Your task to perform on an android device: turn on bluetooth scan Image 0: 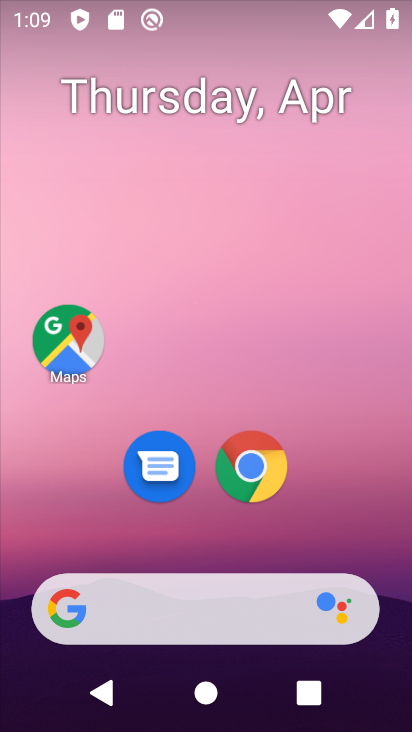
Step 0: drag from (358, 413) to (275, 2)
Your task to perform on an android device: turn on bluetooth scan Image 1: 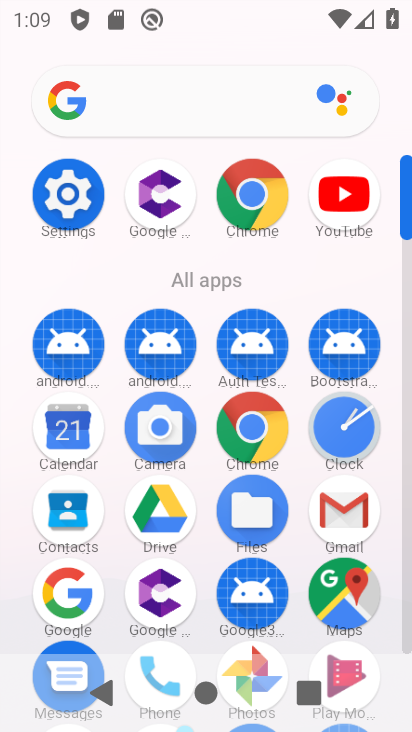
Step 1: drag from (11, 527) to (40, 238)
Your task to perform on an android device: turn on bluetooth scan Image 2: 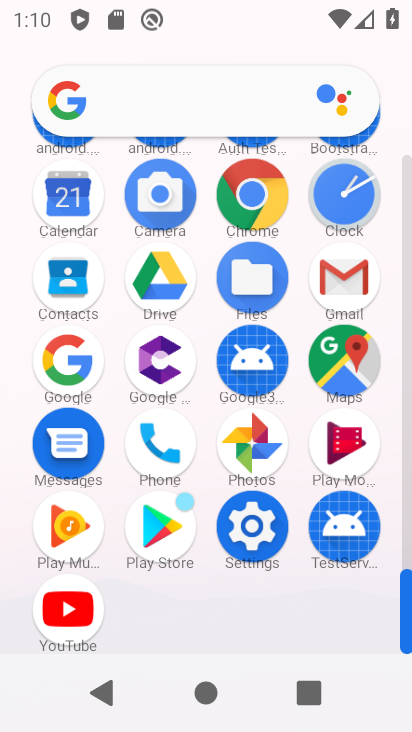
Step 2: click (251, 513)
Your task to perform on an android device: turn on bluetooth scan Image 3: 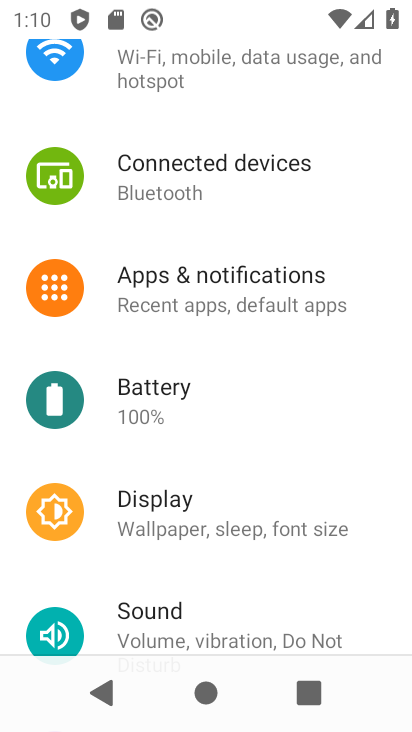
Step 3: drag from (346, 429) to (335, 121)
Your task to perform on an android device: turn on bluetooth scan Image 4: 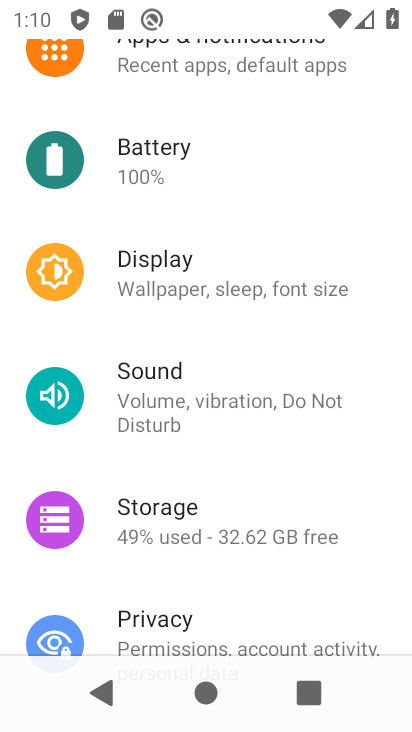
Step 4: drag from (256, 592) to (301, 156)
Your task to perform on an android device: turn on bluetooth scan Image 5: 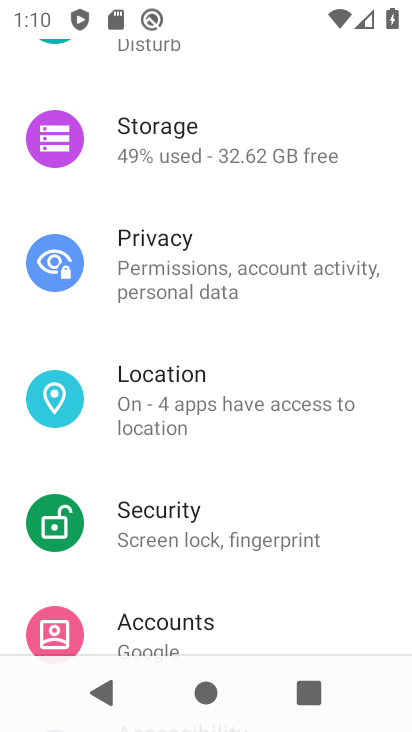
Step 5: drag from (266, 552) to (289, 162)
Your task to perform on an android device: turn on bluetooth scan Image 6: 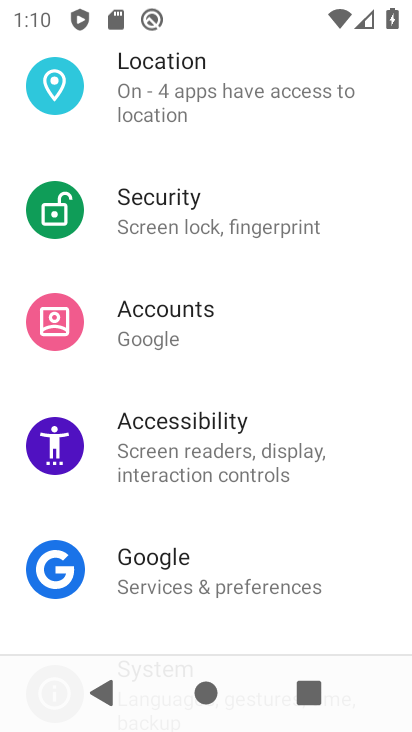
Step 6: drag from (294, 516) to (295, 117)
Your task to perform on an android device: turn on bluetooth scan Image 7: 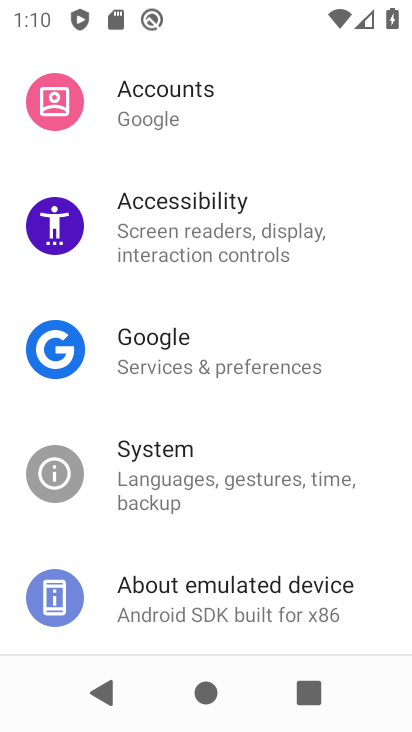
Step 7: drag from (244, 475) to (275, 136)
Your task to perform on an android device: turn on bluetooth scan Image 8: 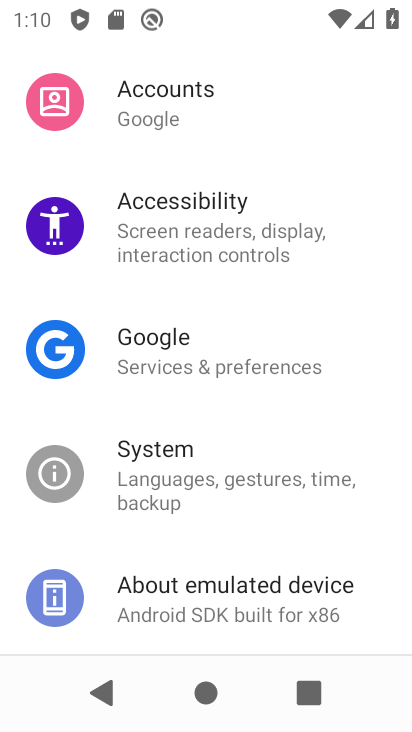
Step 8: drag from (268, 486) to (274, 148)
Your task to perform on an android device: turn on bluetooth scan Image 9: 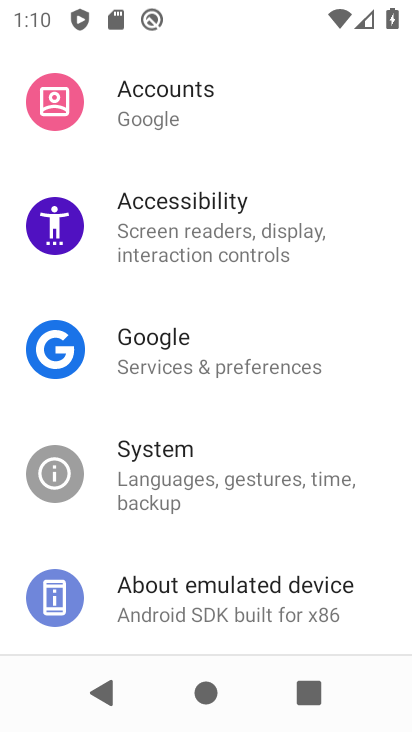
Step 9: drag from (237, 416) to (235, 545)
Your task to perform on an android device: turn on bluetooth scan Image 10: 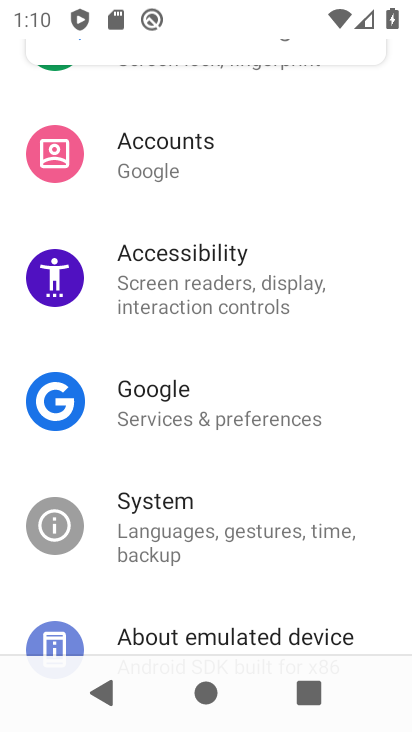
Step 10: drag from (269, 149) to (231, 392)
Your task to perform on an android device: turn on bluetooth scan Image 11: 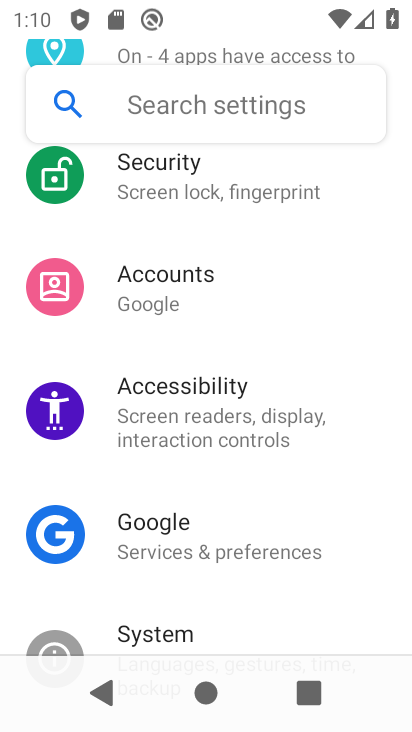
Step 11: drag from (258, 224) to (247, 508)
Your task to perform on an android device: turn on bluetooth scan Image 12: 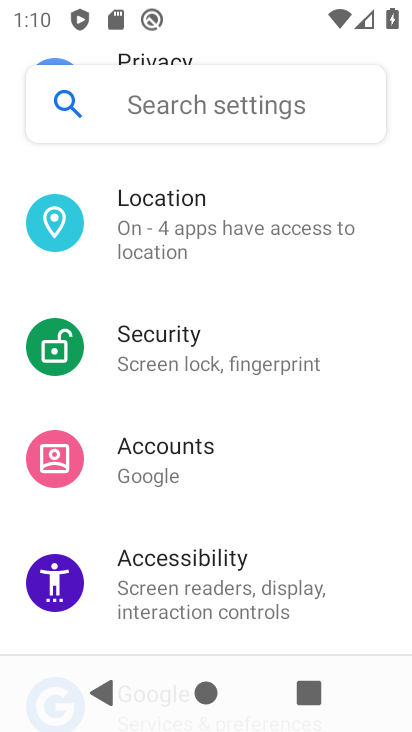
Step 12: click (251, 211)
Your task to perform on an android device: turn on bluetooth scan Image 13: 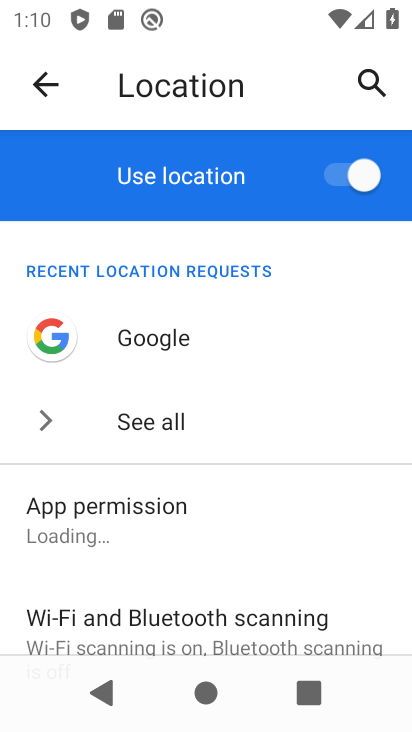
Step 13: drag from (234, 514) to (247, 160)
Your task to perform on an android device: turn on bluetooth scan Image 14: 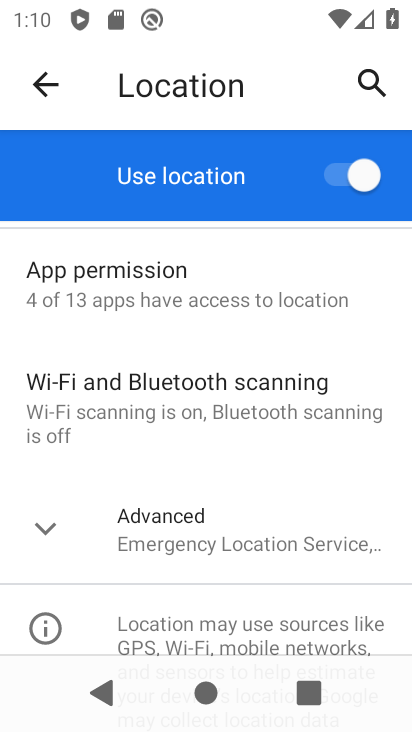
Step 14: click (100, 512)
Your task to perform on an android device: turn on bluetooth scan Image 15: 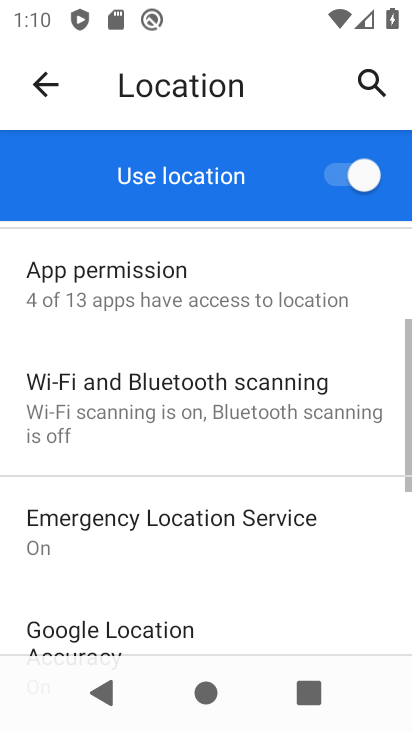
Step 15: drag from (254, 556) to (270, 187)
Your task to perform on an android device: turn on bluetooth scan Image 16: 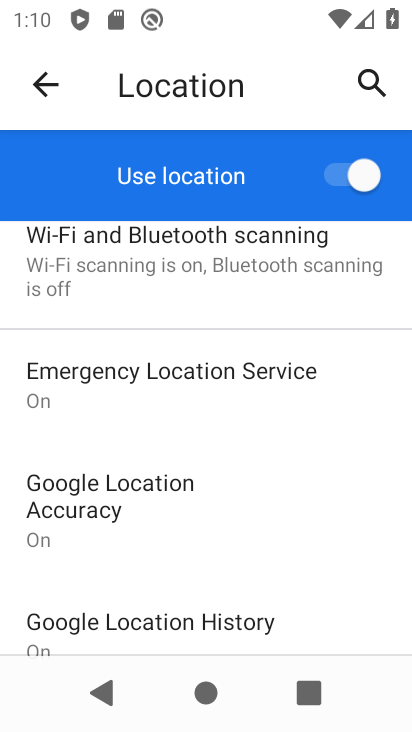
Step 16: drag from (202, 617) to (232, 247)
Your task to perform on an android device: turn on bluetooth scan Image 17: 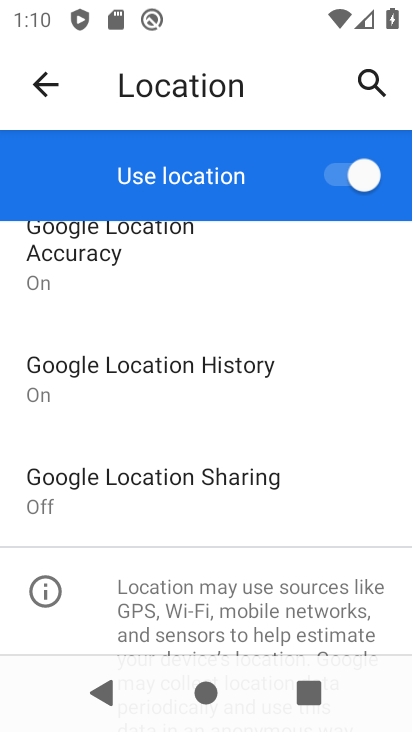
Step 17: drag from (230, 566) to (226, 250)
Your task to perform on an android device: turn on bluetooth scan Image 18: 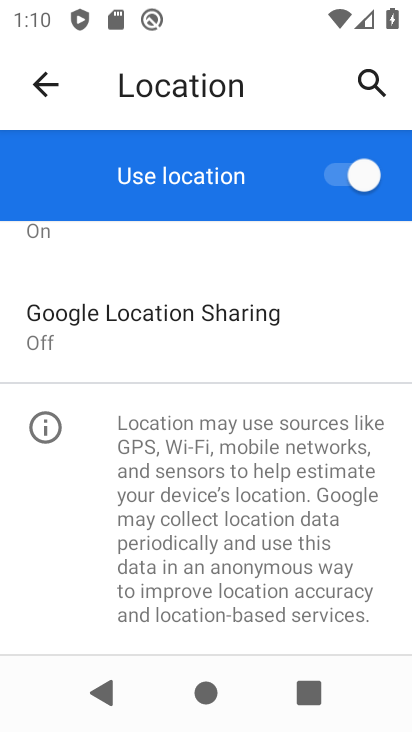
Step 18: drag from (186, 514) to (210, 220)
Your task to perform on an android device: turn on bluetooth scan Image 19: 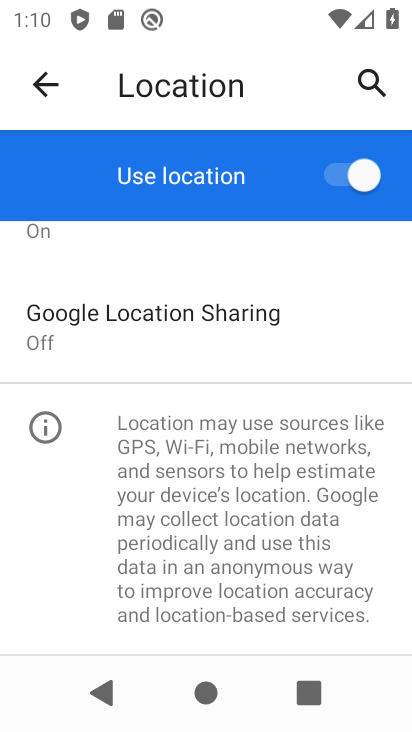
Step 19: drag from (245, 363) to (226, 611)
Your task to perform on an android device: turn on bluetooth scan Image 20: 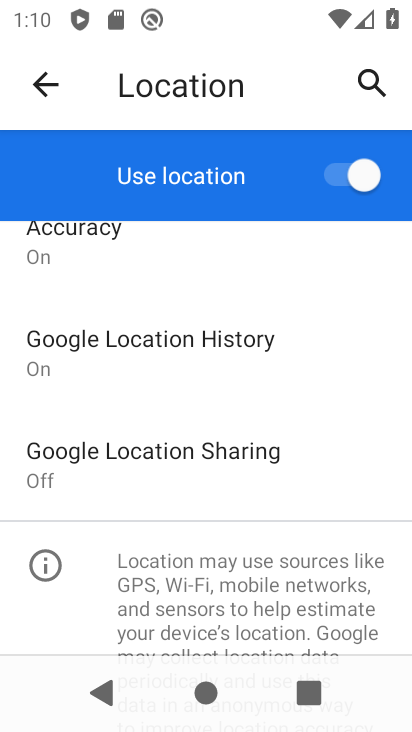
Step 20: drag from (239, 320) to (221, 588)
Your task to perform on an android device: turn on bluetooth scan Image 21: 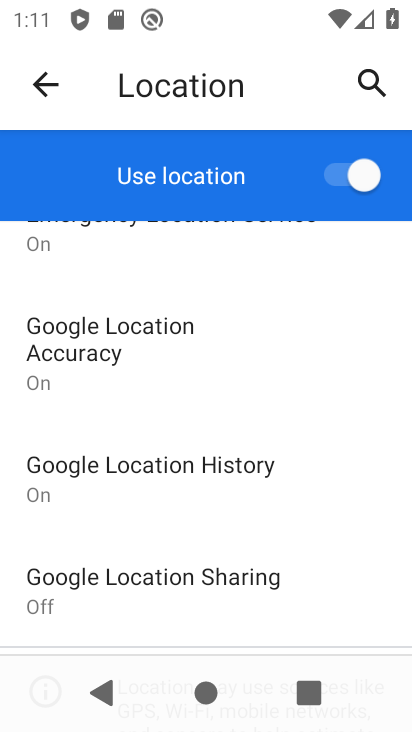
Step 21: drag from (248, 333) to (241, 487)
Your task to perform on an android device: turn on bluetooth scan Image 22: 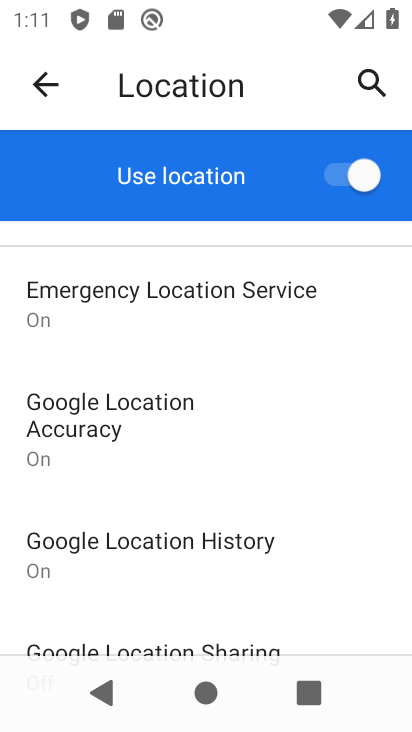
Step 22: drag from (241, 400) to (236, 542)
Your task to perform on an android device: turn on bluetooth scan Image 23: 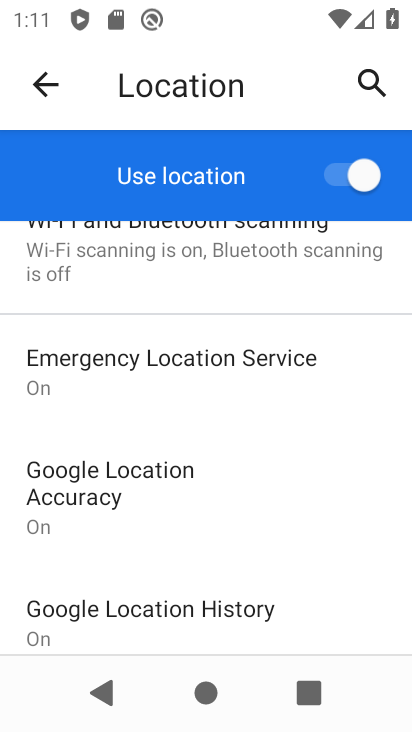
Step 23: click (146, 264)
Your task to perform on an android device: turn on bluetooth scan Image 24: 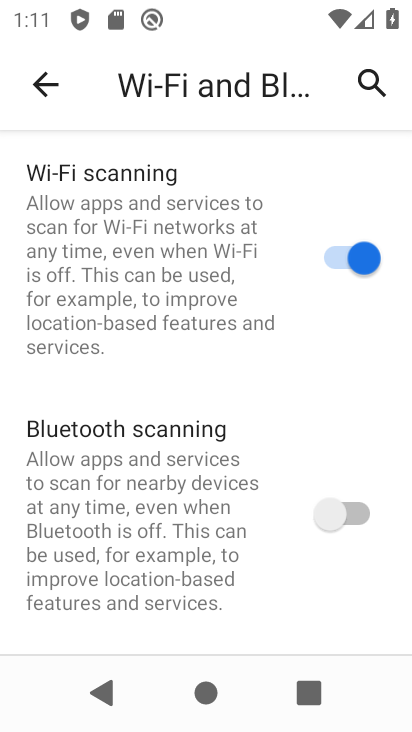
Step 24: click (348, 512)
Your task to perform on an android device: turn on bluetooth scan Image 25: 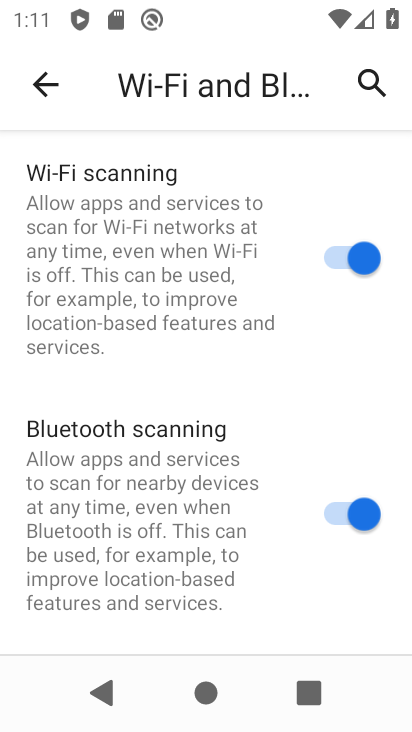
Step 25: task complete